Your task to perform on an android device: read, delete, or share a saved page in the chrome app Image 0: 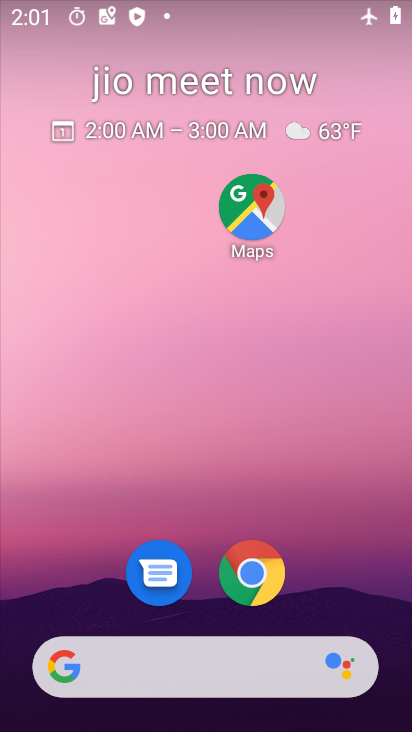
Step 0: click (244, 566)
Your task to perform on an android device: read, delete, or share a saved page in the chrome app Image 1: 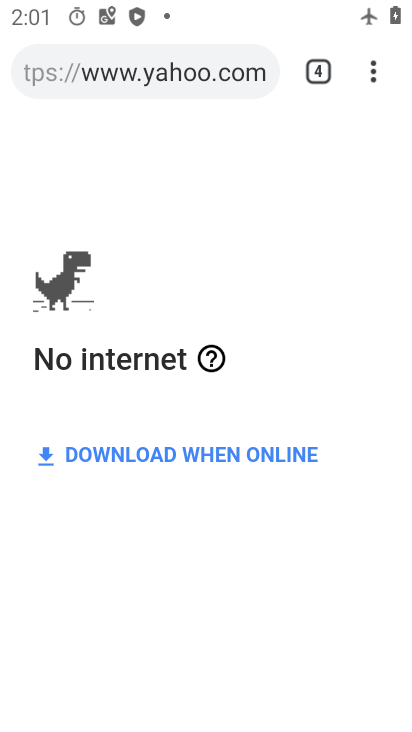
Step 1: drag from (290, 0) to (329, 507)
Your task to perform on an android device: read, delete, or share a saved page in the chrome app Image 2: 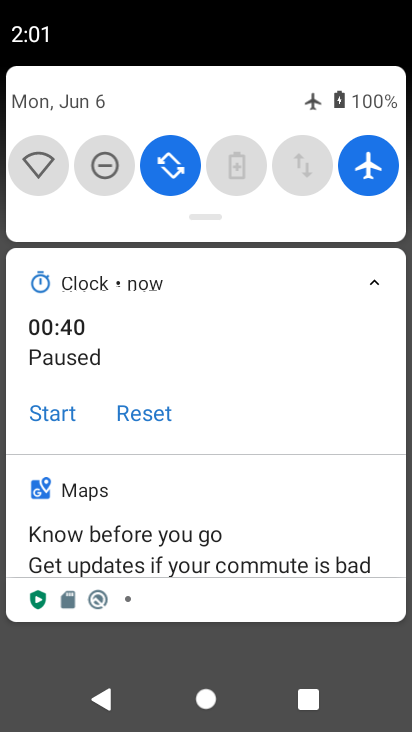
Step 2: click (373, 178)
Your task to perform on an android device: read, delete, or share a saved page in the chrome app Image 3: 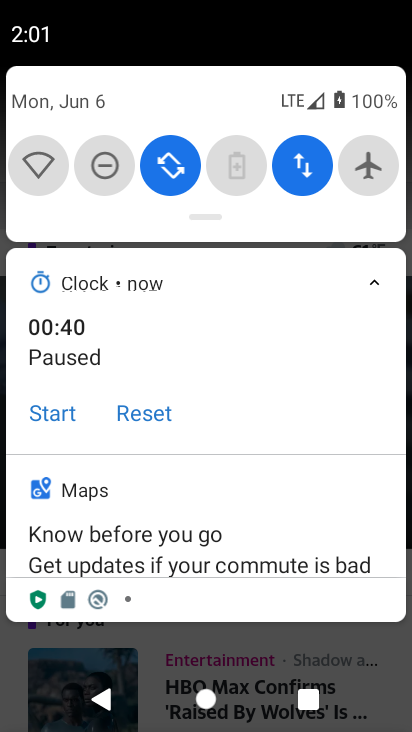
Step 3: task complete